Your task to perform on an android device: install app "Move to iOS" Image 0: 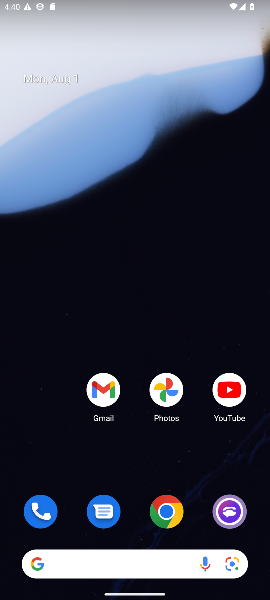
Step 0: drag from (129, 506) to (131, 152)
Your task to perform on an android device: install app "Move to iOS" Image 1: 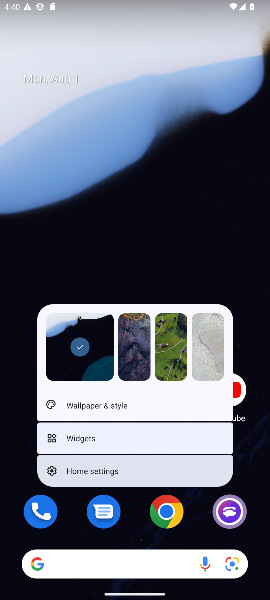
Step 1: drag from (132, 518) to (143, 203)
Your task to perform on an android device: install app "Move to iOS" Image 2: 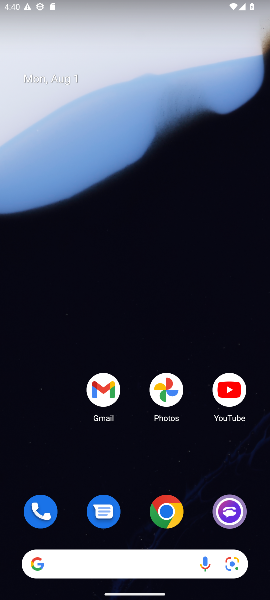
Step 2: click (134, 522)
Your task to perform on an android device: install app "Move to iOS" Image 3: 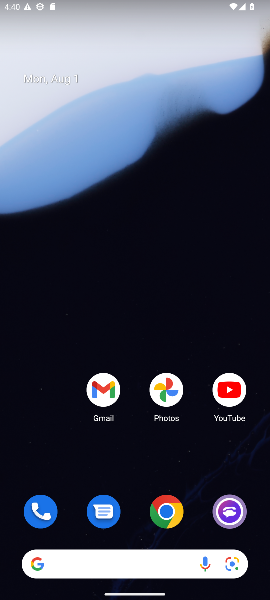
Step 3: drag from (134, 514) to (213, 48)
Your task to perform on an android device: install app "Move to iOS" Image 4: 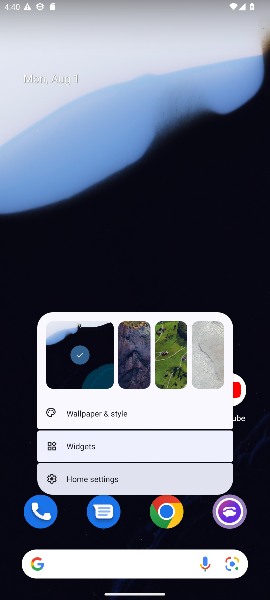
Step 4: press home button
Your task to perform on an android device: install app "Move to iOS" Image 5: 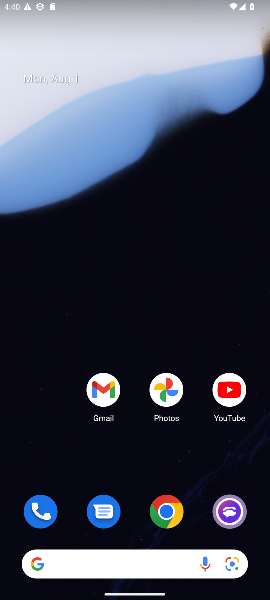
Step 5: drag from (137, 487) to (129, 140)
Your task to perform on an android device: install app "Move to iOS" Image 6: 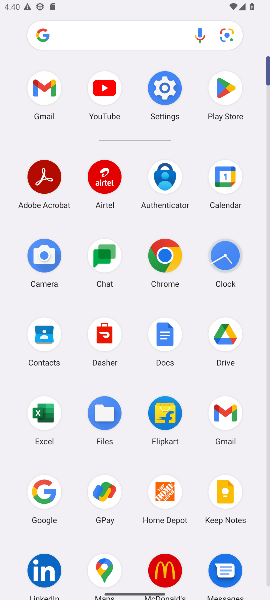
Step 6: click (220, 101)
Your task to perform on an android device: install app "Move to iOS" Image 7: 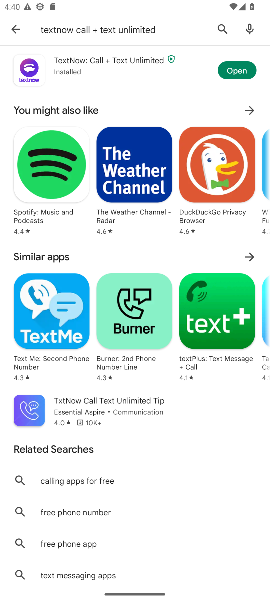
Step 7: click (13, 31)
Your task to perform on an android device: install app "Move to iOS" Image 8: 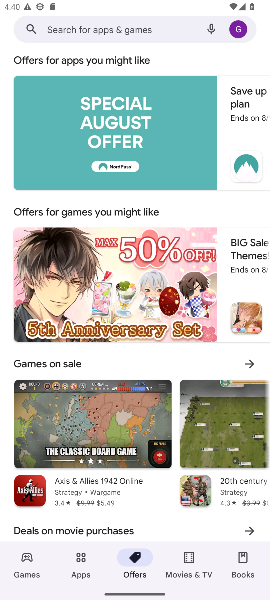
Step 8: click (91, 29)
Your task to perform on an android device: install app "Move to iOS" Image 9: 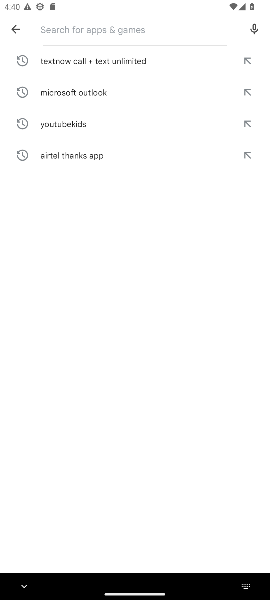
Step 9: type "Move to iOS"
Your task to perform on an android device: install app "Move to iOS" Image 10: 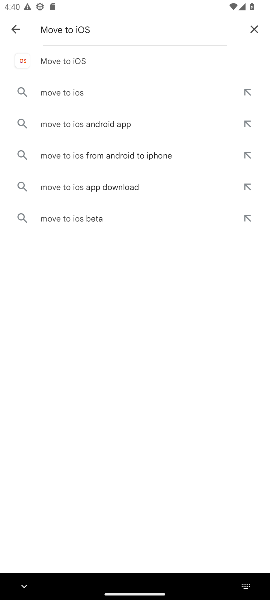
Step 10: click (67, 63)
Your task to perform on an android device: install app "Move to iOS" Image 11: 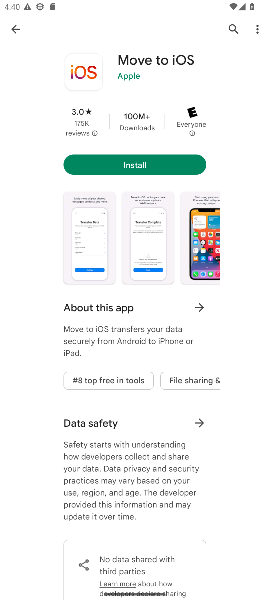
Step 11: click (127, 163)
Your task to perform on an android device: install app "Move to iOS" Image 12: 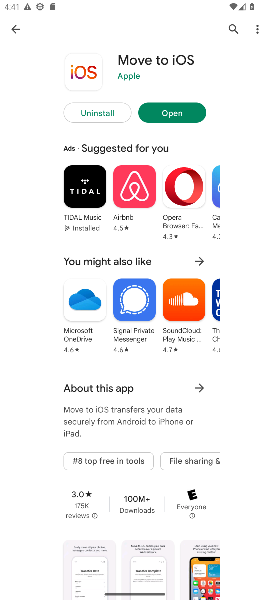
Step 12: click (168, 115)
Your task to perform on an android device: install app "Move to iOS" Image 13: 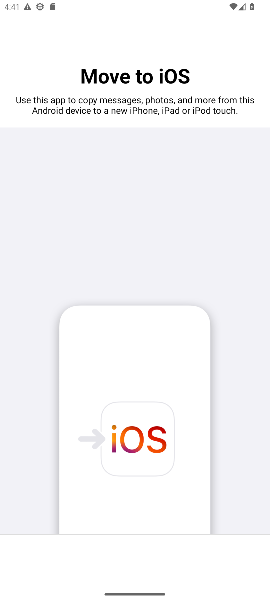
Step 13: task complete